Your task to perform on an android device: turn off data saver in the chrome app Image 0: 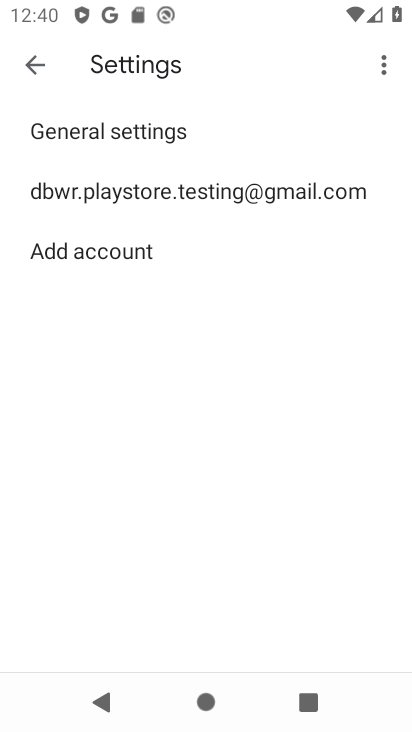
Step 0: press home button
Your task to perform on an android device: turn off data saver in the chrome app Image 1: 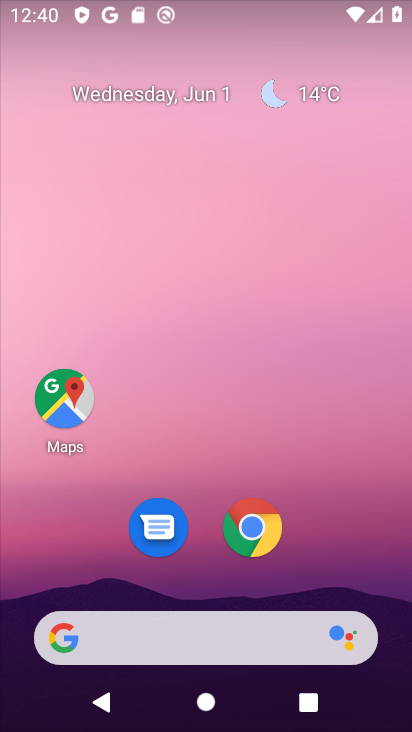
Step 1: drag from (256, 543) to (298, 199)
Your task to perform on an android device: turn off data saver in the chrome app Image 2: 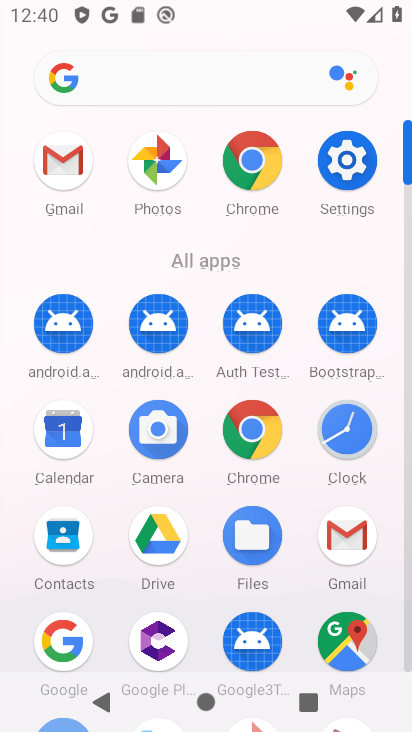
Step 2: click (256, 441)
Your task to perform on an android device: turn off data saver in the chrome app Image 3: 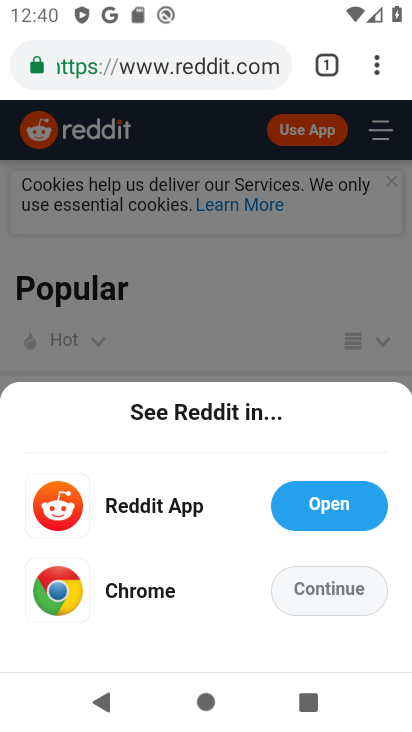
Step 3: click (377, 70)
Your task to perform on an android device: turn off data saver in the chrome app Image 4: 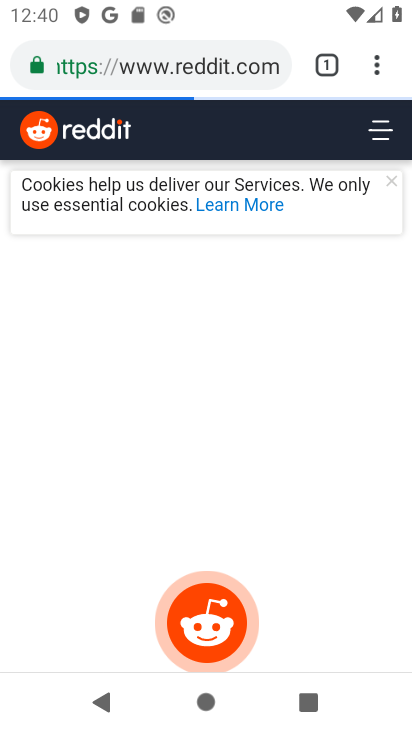
Step 4: click (383, 75)
Your task to perform on an android device: turn off data saver in the chrome app Image 5: 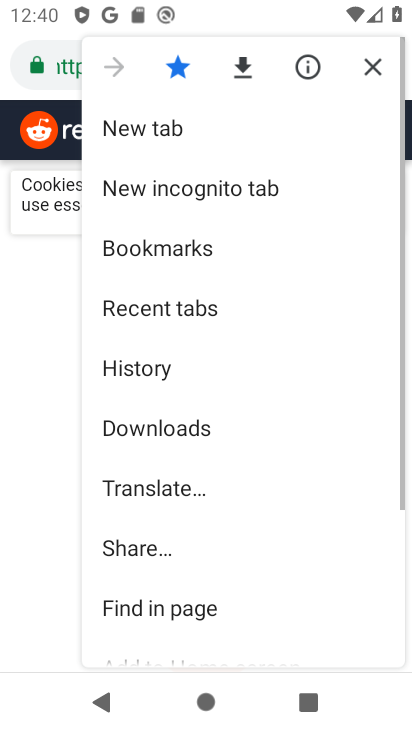
Step 5: drag from (239, 446) to (316, 114)
Your task to perform on an android device: turn off data saver in the chrome app Image 6: 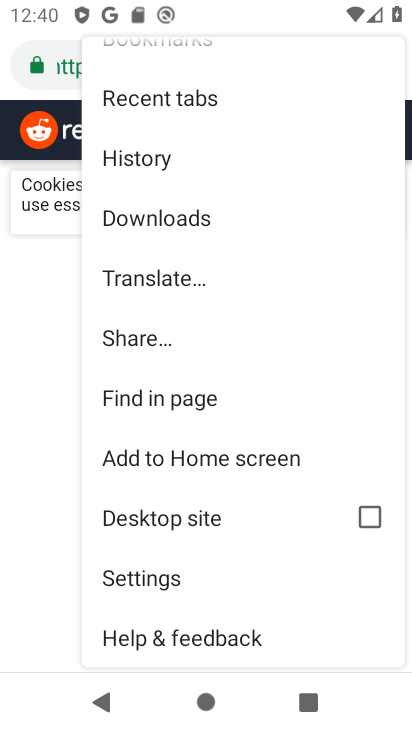
Step 6: click (164, 574)
Your task to perform on an android device: turn off data saver in the chrome app Image 7: 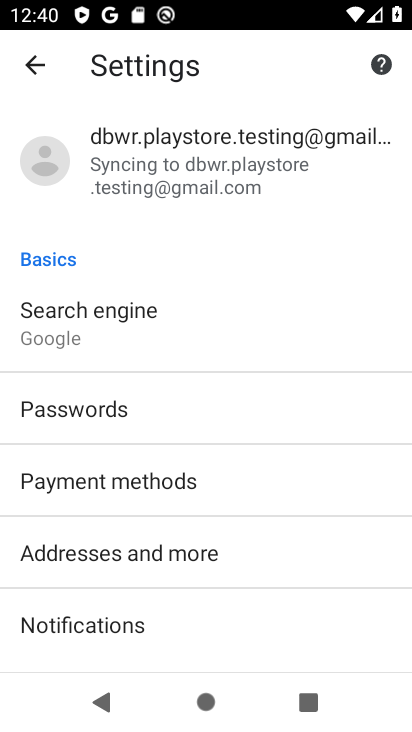
Step 7: drag from (164, 566) to (201, 305)
Your task to perform on an android device: turn off data saver in the chrome app Image 8: 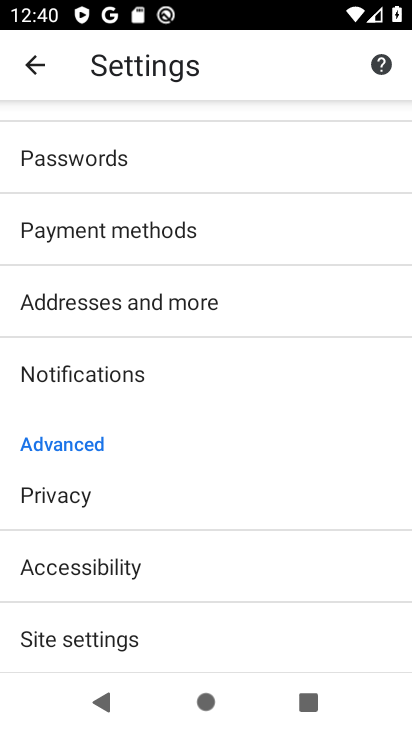
Step 8: drag from (147, 544) to (210, 332)
Your task to perform on an android device: turn off data saver in the chrome app Image 9: 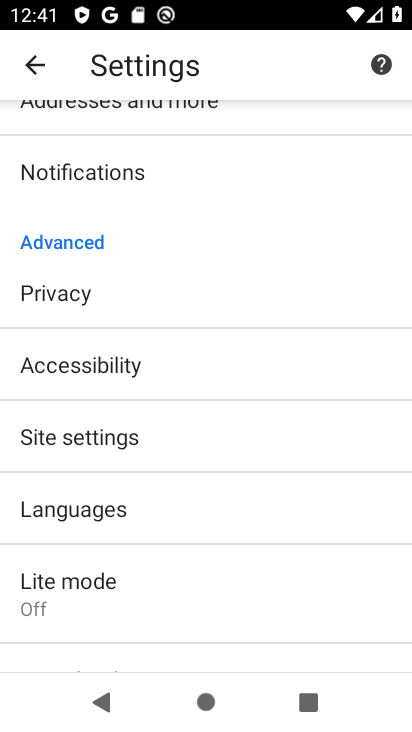
Step 9: click (98, 599)
Your task to perform on an android device: turn off data saver in the chrome app Image 10: 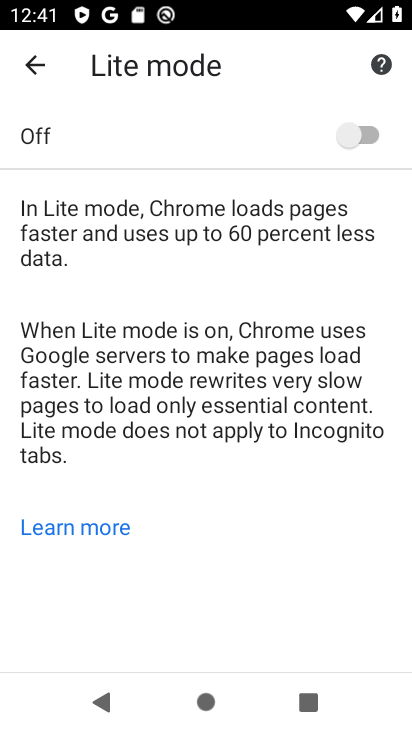
Step 10: task complete